Your task to perform on an android device: check out phone information Image 0: 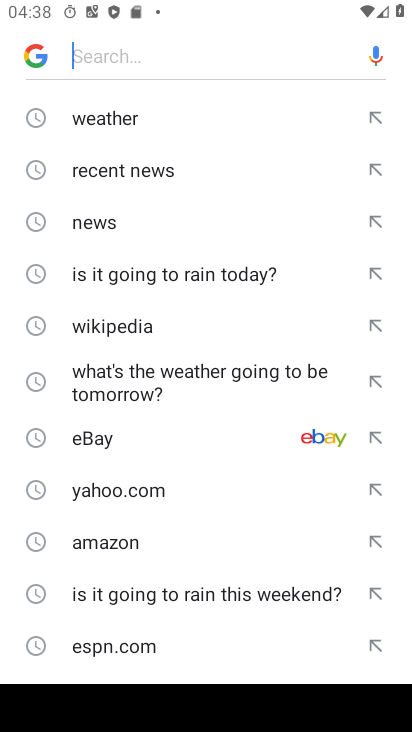
Step 0: press home button
Your task to perform on an android device: check out phone information Image 1: 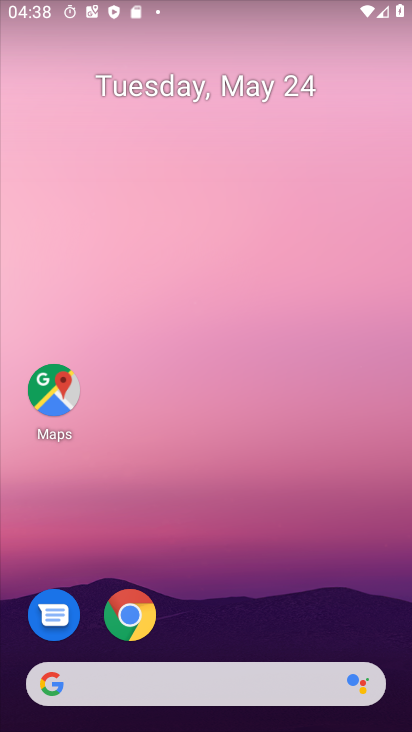
Step 1: drag from (256, 591) to (266, 139)
Your task to perform on an android device: check out phone information Image 2: 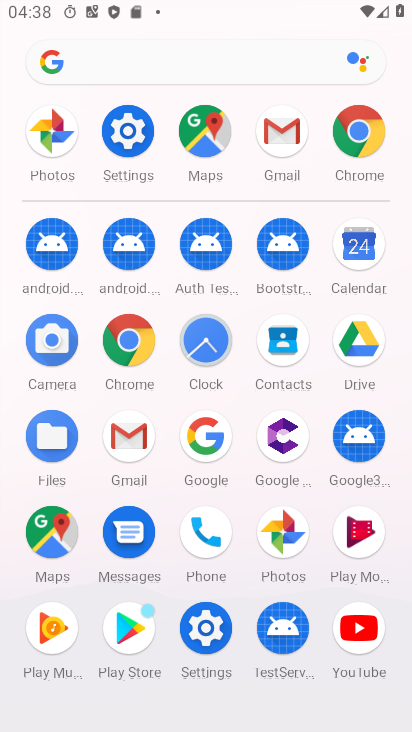
Step 2: click (196, 134)
Your task to perform on an android device: check out phone information Image 3: 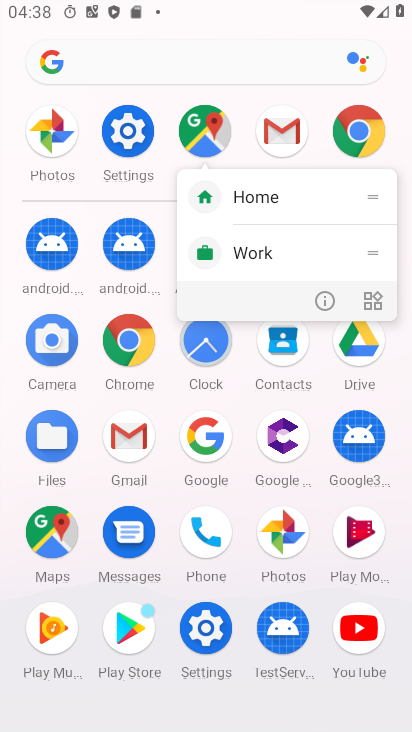
Step 3: click (122, 118)
Your task to perform on an android device: check out phone information Image 4: 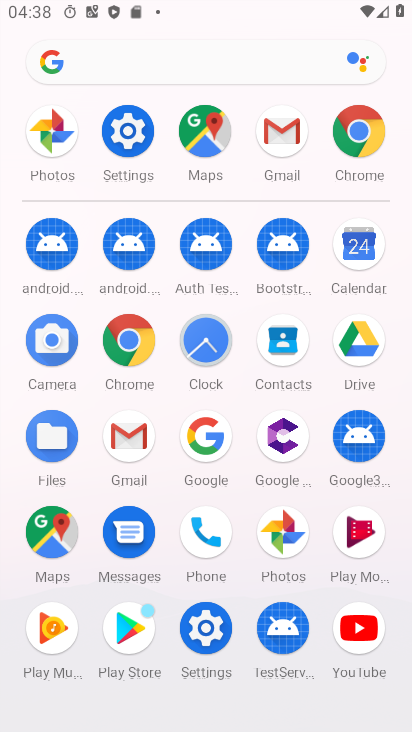
Step 4: click (124, 138)
Your task to perform on an android device: check out phone information Image 5: 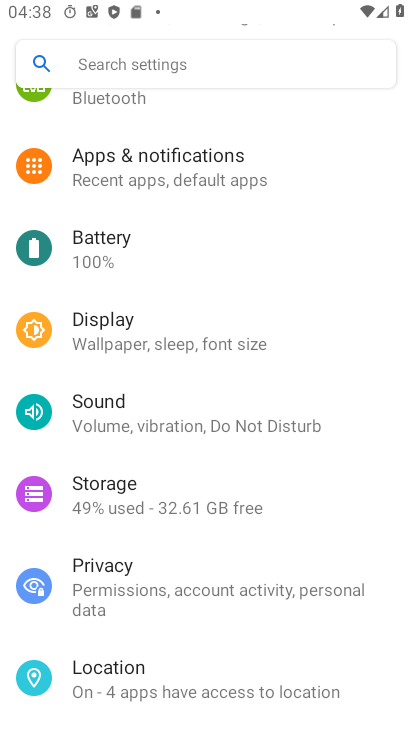
Step 5: drag from (197, 691) to (284, 54)
Your task to perform on an android device: check out phone information Image 6: 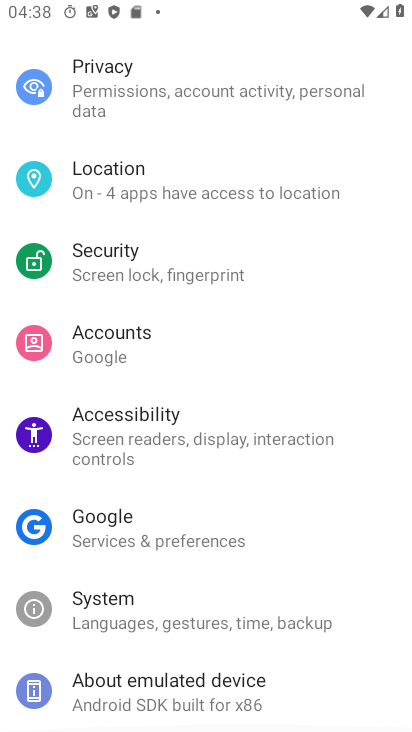
Step 6: drag from (205, 654) to (296, 15)
Your task to perform on an android device: check out phone information Image 7: 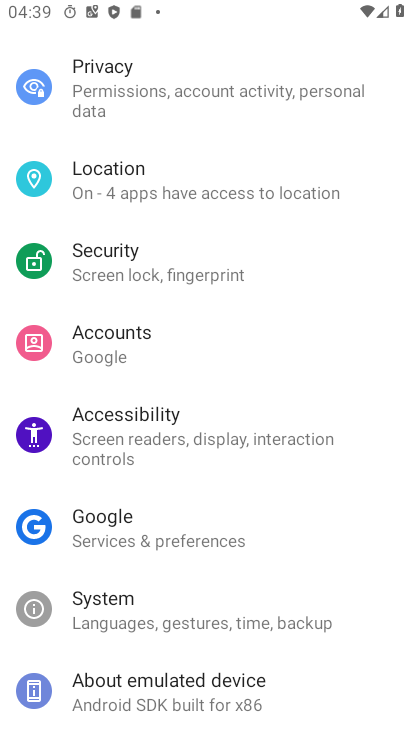
Step 7: click (239, 712)
Your task to perform on an android device: check out phone information Image 8: 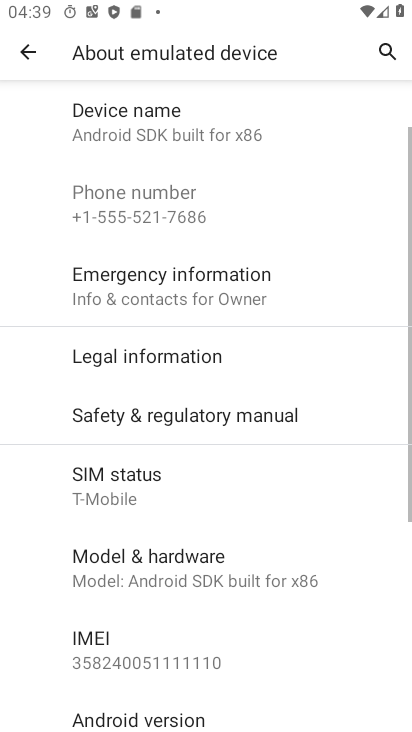
Step 8: task complete